Your task to perform on an android device: Search for pizza restaurants on Maps Image 0: 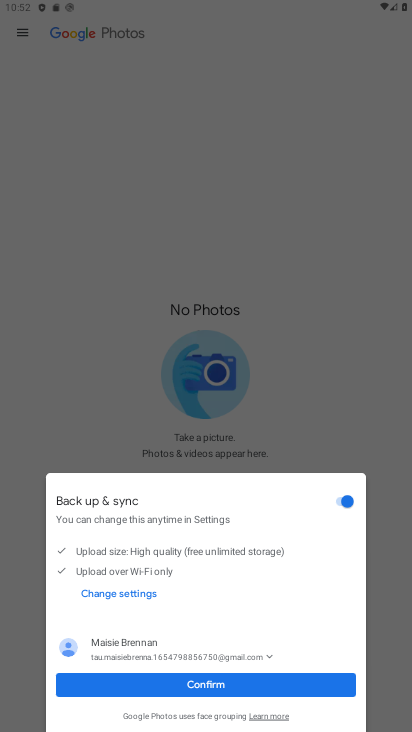
Step 0: press home button
Your task to perform on an android device: Search for pizza restaurants on Maps Image 1: 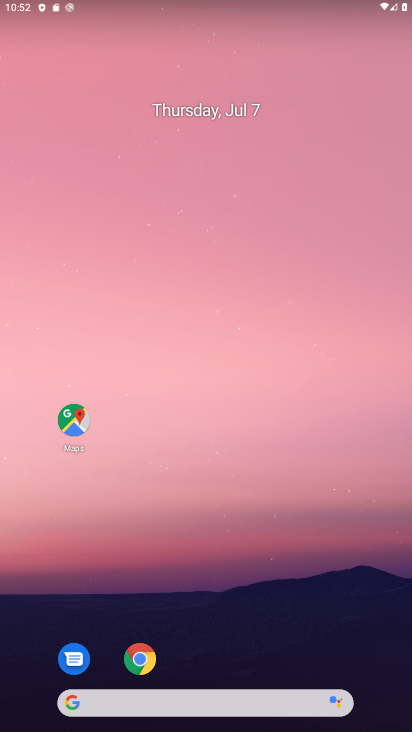
Step 1: click (70, 419)
Your task to perform on an android device: Search for pizza restaurants on Maps Image 2: 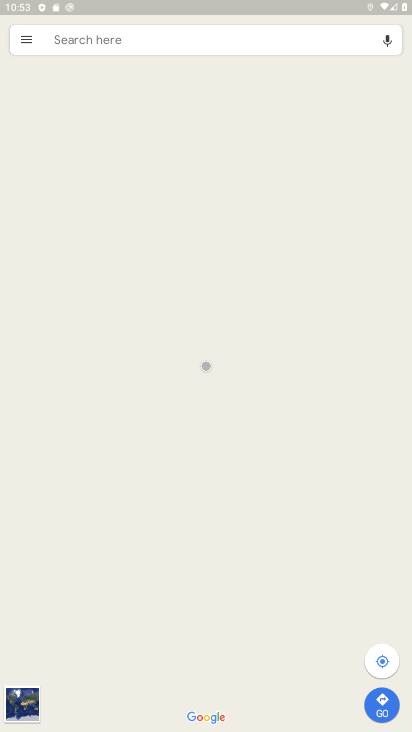
Step 2: click (81, 35)
Your task to perform on an android device: Search for pizza restaurants on Maps Image 3: 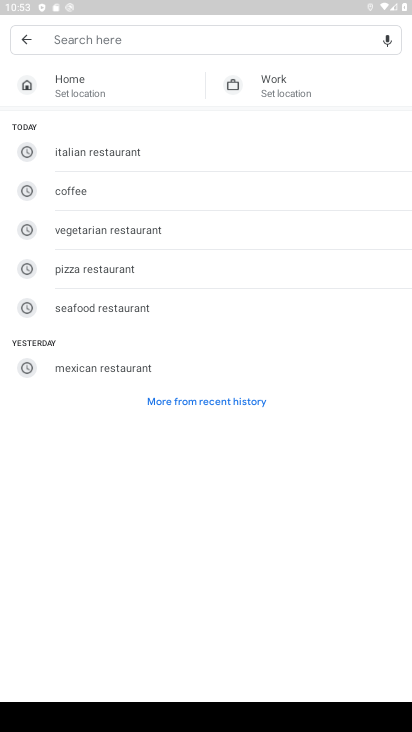
Step 3: type "pizza restaurant"
Your task to perform on an android device: Search for pizza restaurants on Maps Image 4: 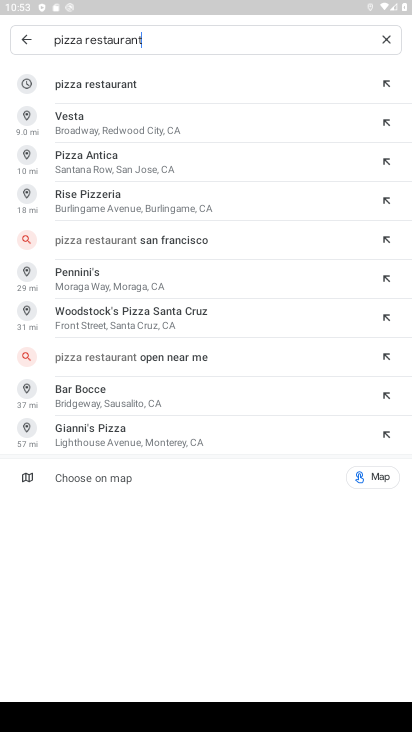
Step 4: click (138, 86)
Your task to perform on an android device: Search for pizza restaurants on Maps Image 5: 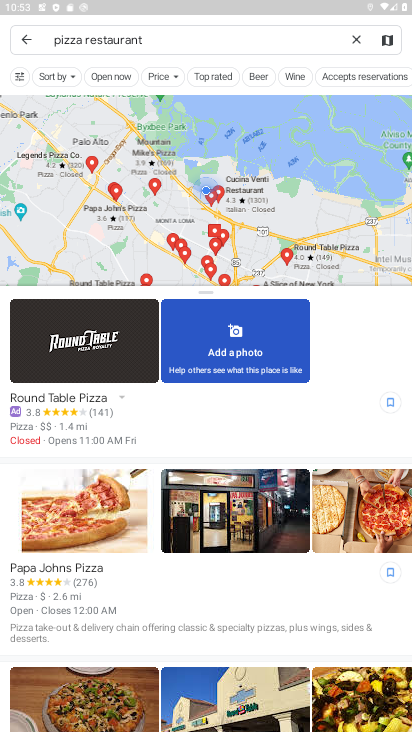
Step 5: task complete